Your task to perform on an android device: snooze an email in the gmail app Image 0: 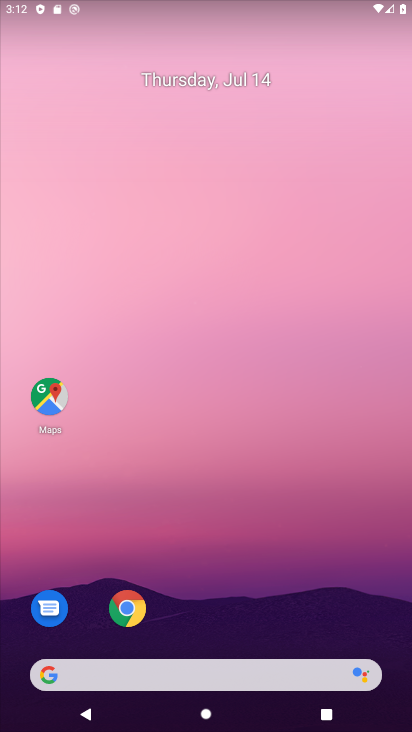
Step 0: drag from (186, 637) to (260, 266)
Your task to perform on an android device: snooze an email in the gmail app Image 1: 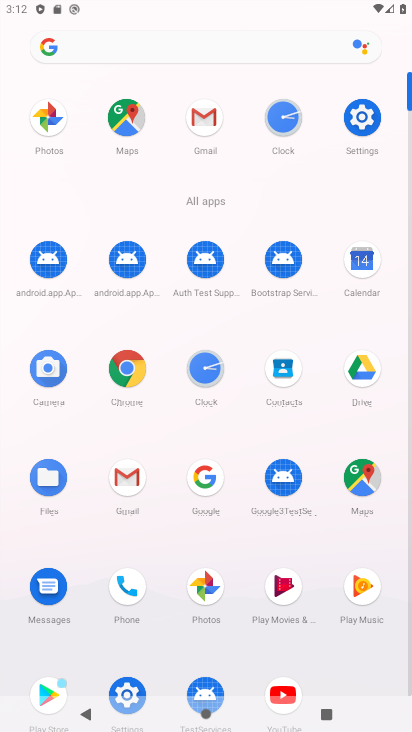
Step 1: click (124, 492)
Your task to perform on an android device: snooze an email in the gmail app Image 2: 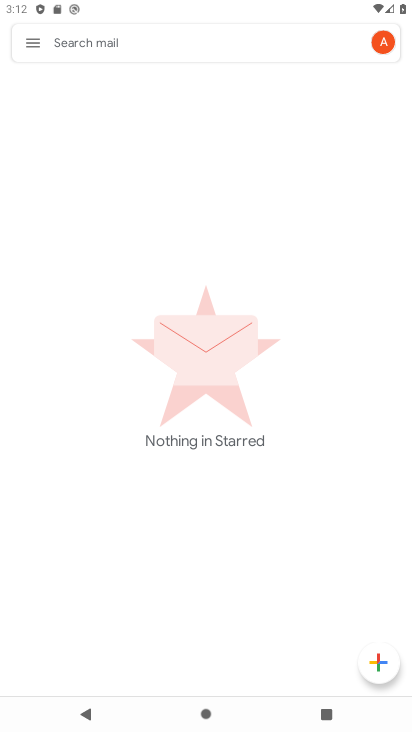
Step 2: click (48, 42)
Your task to perform on an android device: snooze an email in the gmail app Image 3: 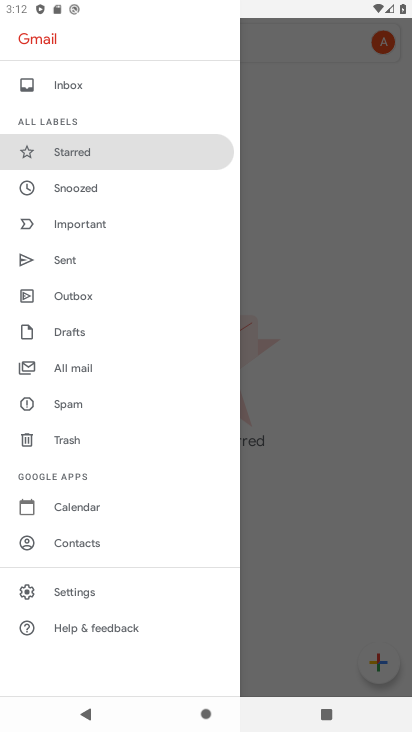
Step 3: click (81, 371)
Your task to perform on an android device: snooze an email in the gmail app Image 4: 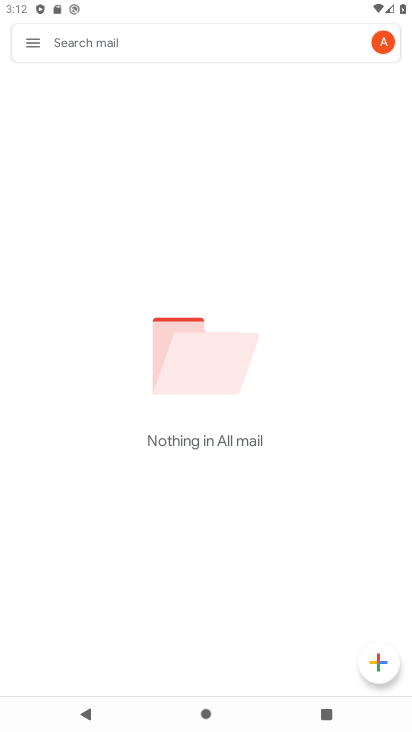
Step 4: task complete